Your task to perform on an android device: What is the news today? Image 0: 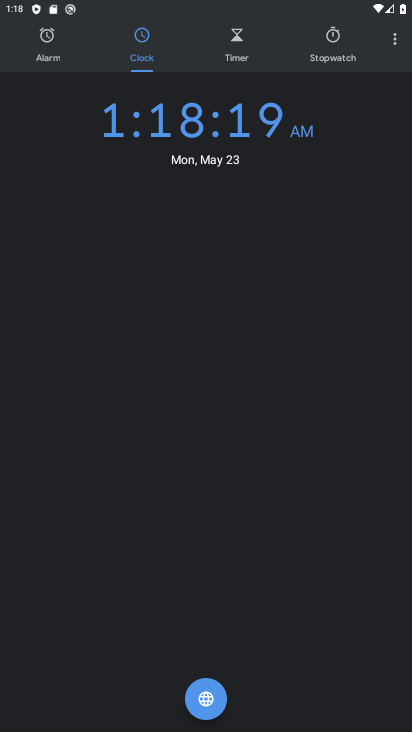
Step 0: drag from (276, 581) to (287, 364)
Your task to perform on an android device: What is the news today? Image 1: 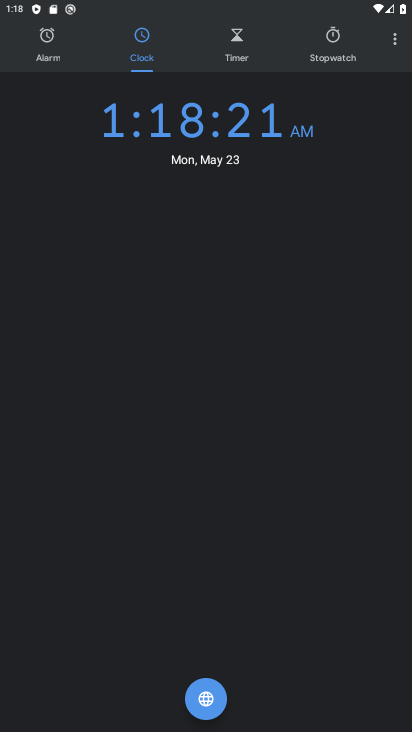
Step 1: press back button
Your task to perform on an android device: What is the news today? Image 2: 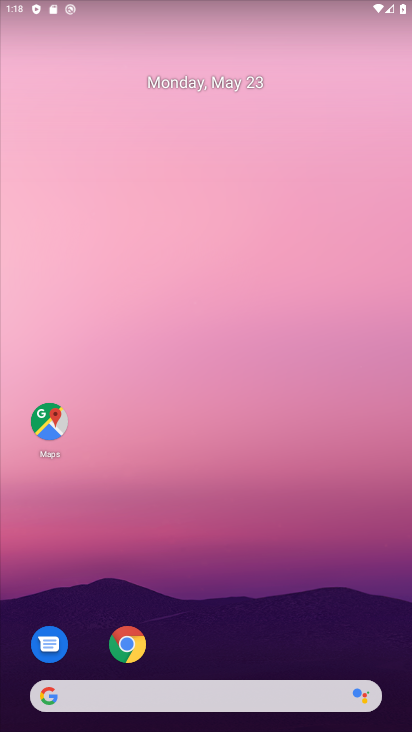
Step 2: drag from (264, 605) to (268, 22)
Your task to perform on an android device: What is the news today? Image 3: 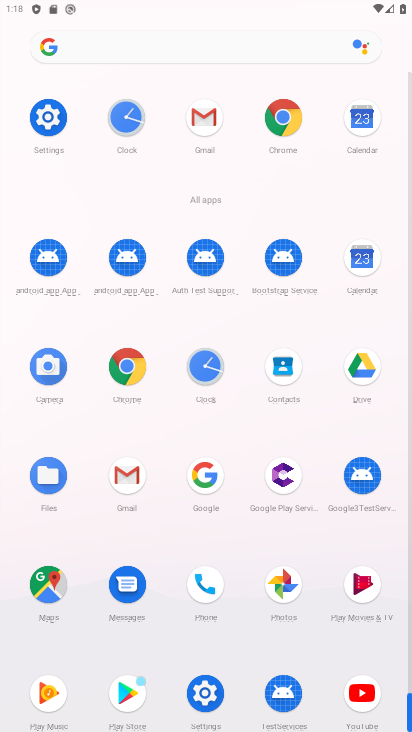
Step 3: drag from (10, 597) to (13, 141)
Your task to perform on an android device: What is the news today? Image 4: 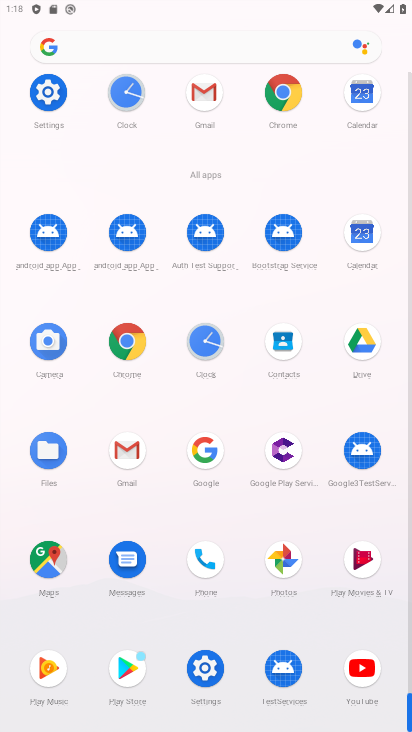
Step 4: click (121, 339)
Your task to perform on an android device: What is the news today? Image 5: 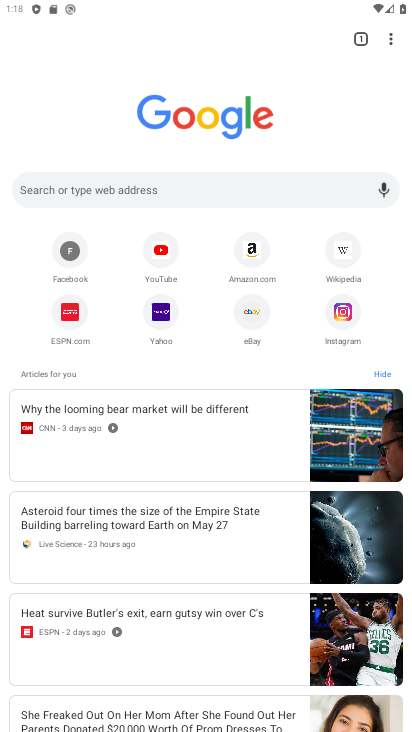
Step 5: click (220, 189)
Your task to perform on an android device: What is the news today? Image 6: 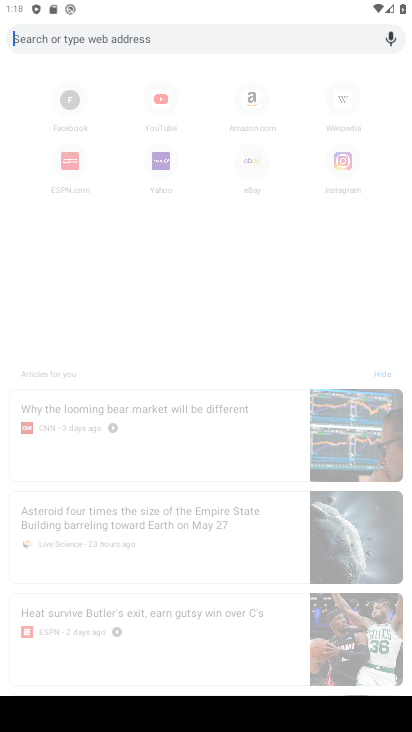
Step 6: type "What is the news today?"
Your task to perform on an android device: What is the news today? Image 7: 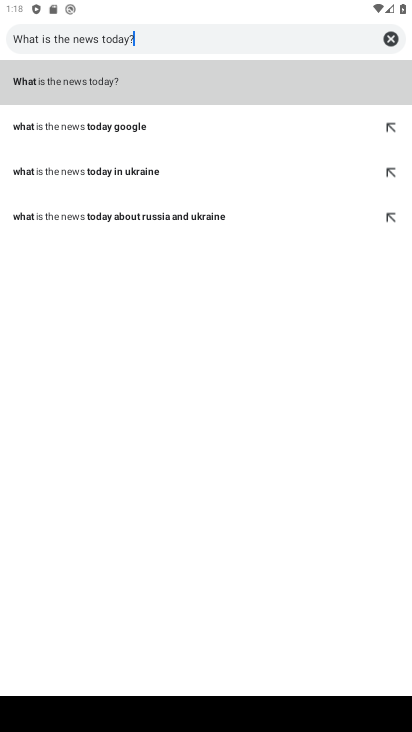
Step 7: click (179, 86)
Your task to perform on an android device: What is the news today? Image 8: 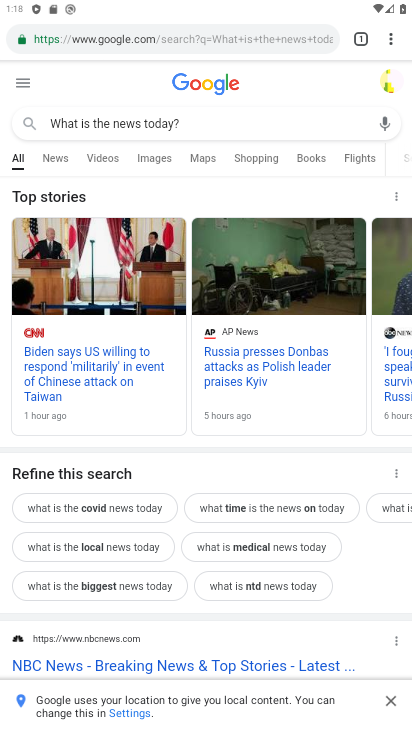
Step 8: task complete